Your task to perform on an android device: What's the weather going to be this weekend? Image 0: 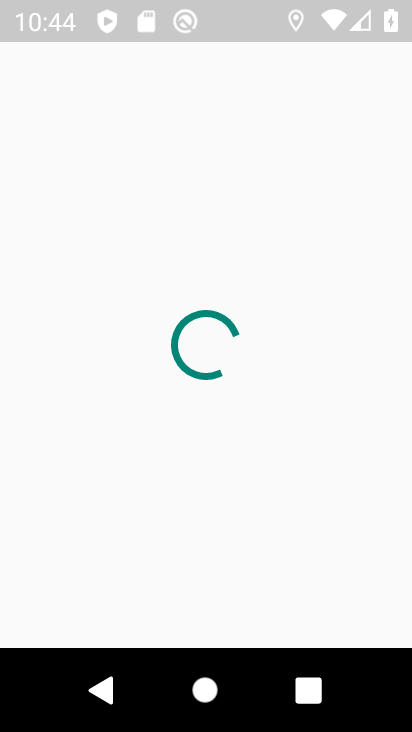
Step 0: press back button
Your task to perform on an android device: What's the weather going to be this weekend? Image 1: 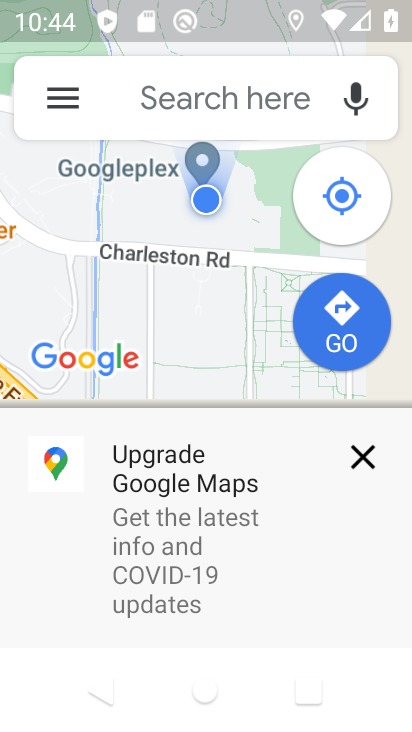
Step 1: press home button
Your task to perform on an android device: What's the weather going to be this weekend? Image 2: 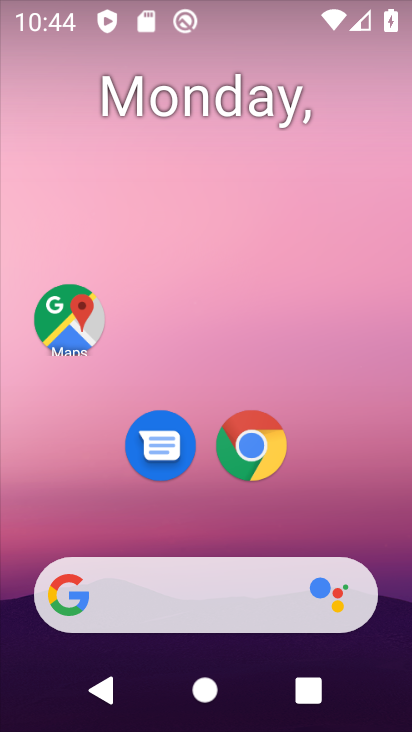
Step 2: click (148, 585)
Your task to perform on an android device: What's the weather going to be this weekend? Image 3: 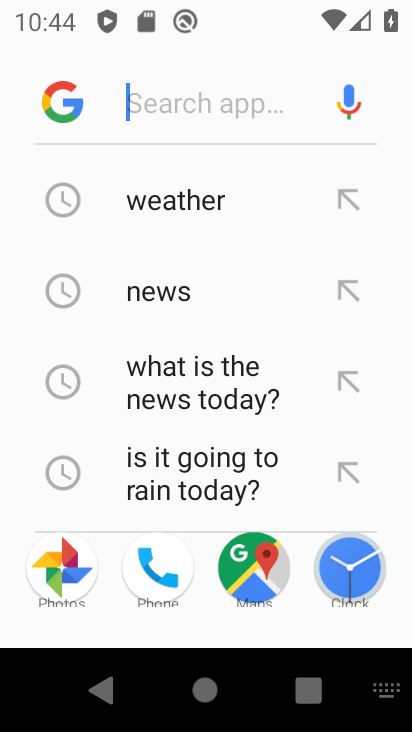
Step 3: click (172, 187)
Your task to perform on an android device: What's the weather going to be this weekend? Image 4: 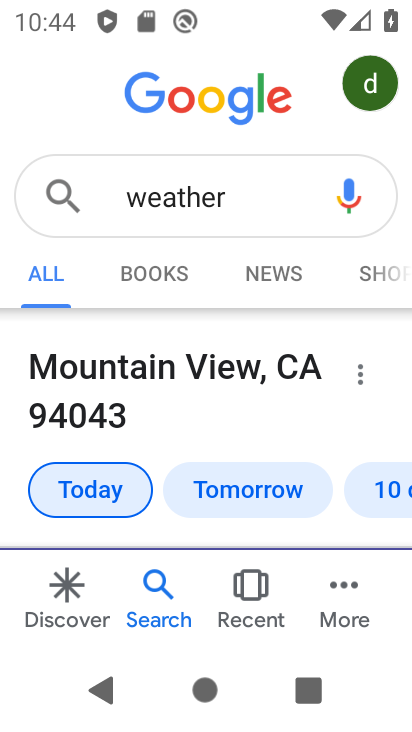
Step 4: click (388, 486)
Your task to perform on an android device: What's the weather going to be this weekend? Image 5: 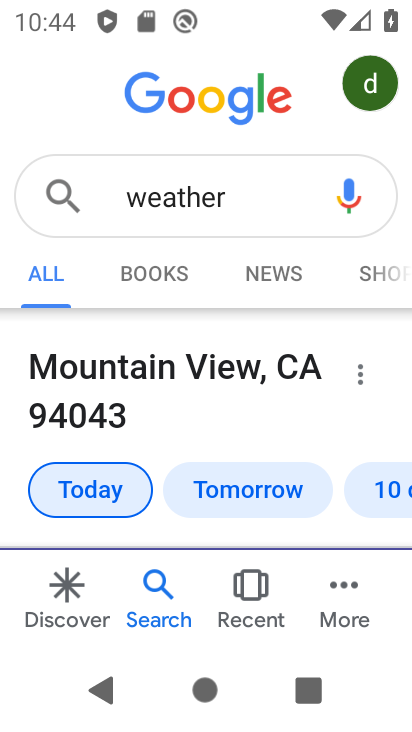
Step 5: click (378, 480)
Your task to perform on an android device: What's the weather going to be this weekend? Image 6: 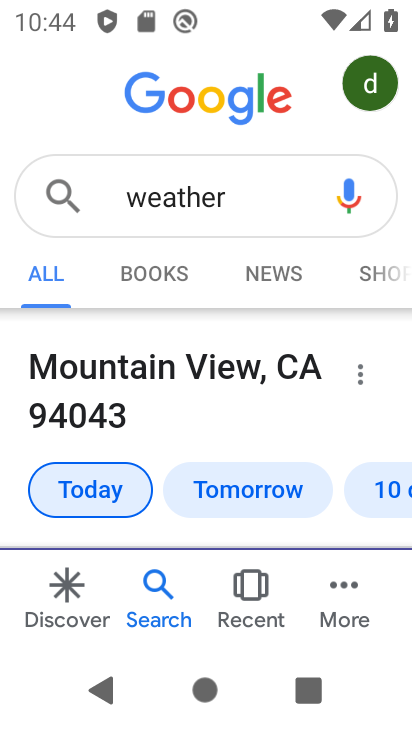
Step 6: drag from (248, 486) to (282, 132)
Your task to perform on an android device: What's the weather going to be this weekend? Image 7: 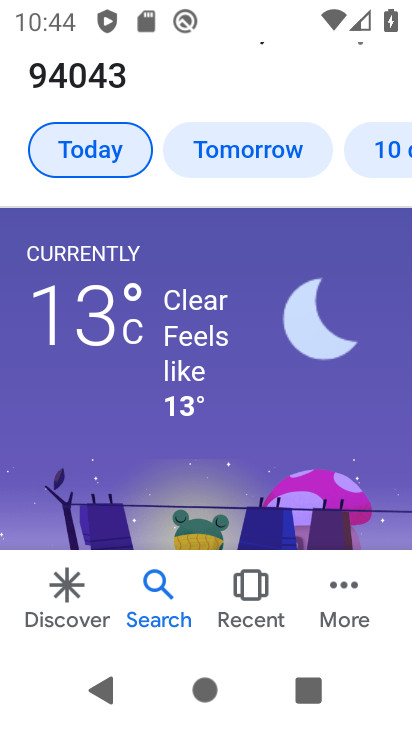
Step 7: click (378, 156)
Your task to perform on an android device: What's the weather going to be this weekend? Image 8: 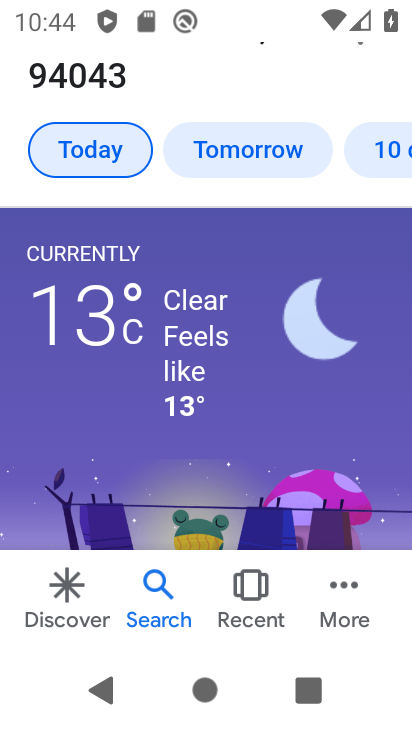
Step 8: click (387, 149)
Your task to perform on an android device: What's the weather going to be this weekend? Image 9: 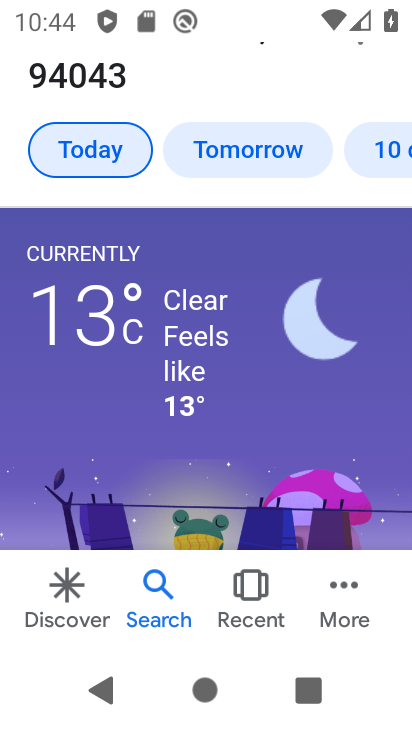
Step 9: task complete